Your task to perform on an android device: choose inbox layout in the gmail app Image 0: 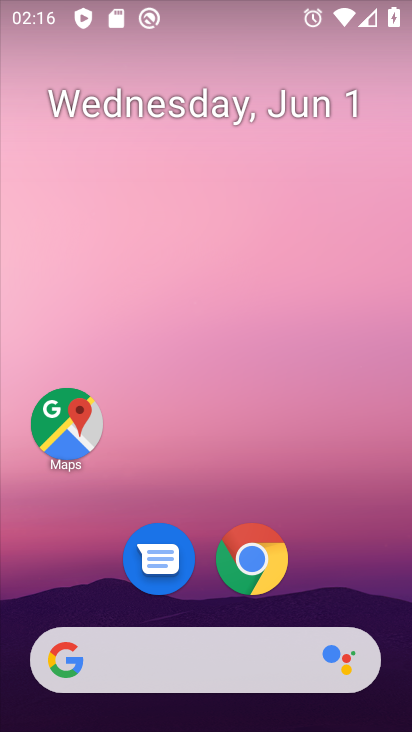
Step 0: press home button
Your task to perform on an android device: choose inbox layout in the gmail app Image 1: 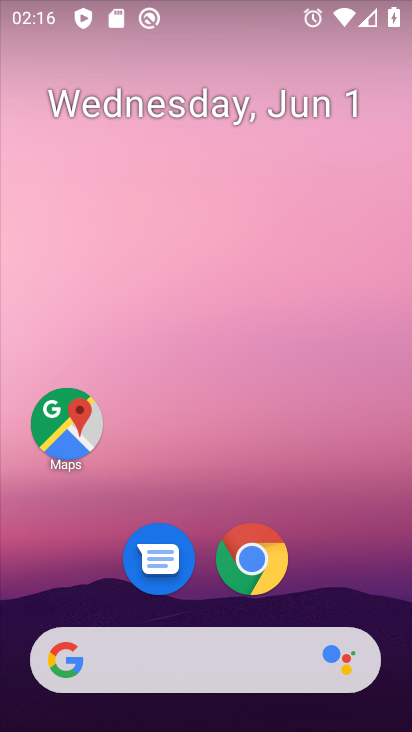
Step 1: drag from (339, 602) to (411, 172)
Your task to perform on an android device: choose inbox layout in the gmail app Image 2: 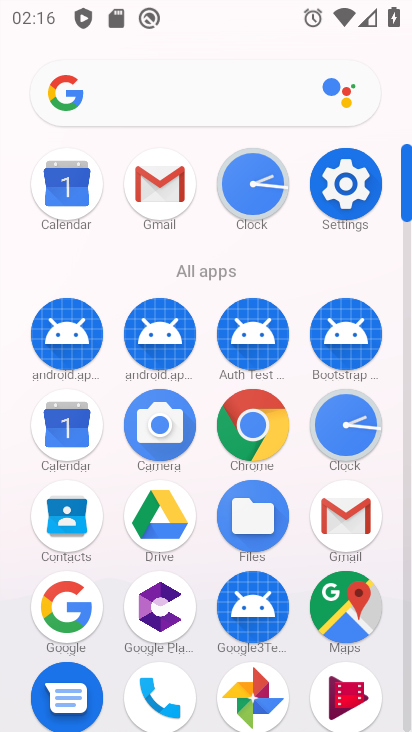
Step 2: click (346, 516)
Your task to perform on an android device: choose inbox layout in the gmail app Image 3: 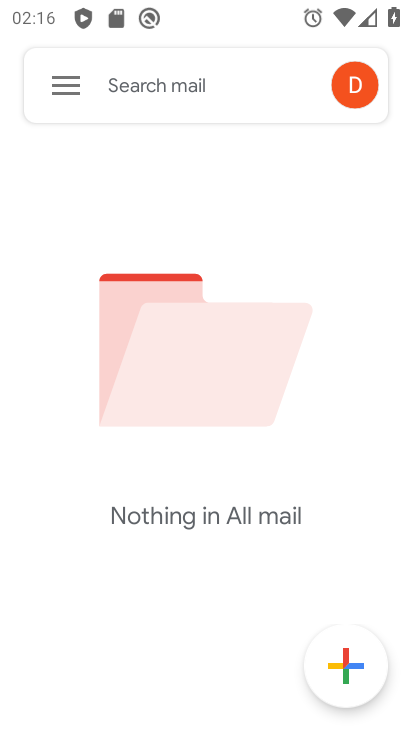
Step 3: click (55, 75)
Your task to perform on an android device: choose inbox layout in the gmail app Image 4: 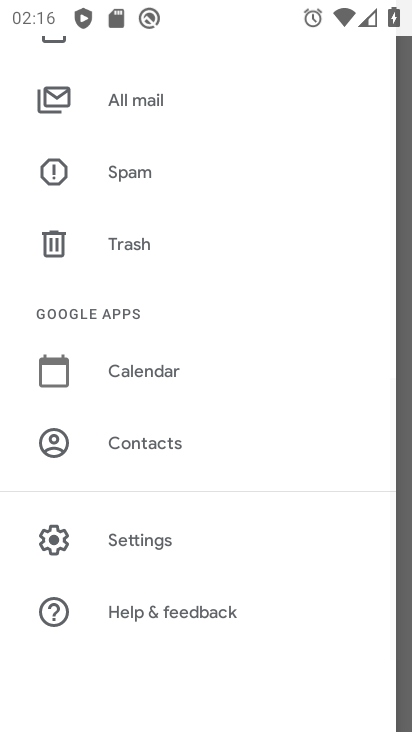
Step 4: click (129, 543)
Your task to perform on an android device: choose inbox layout in the gmail app Image 5: 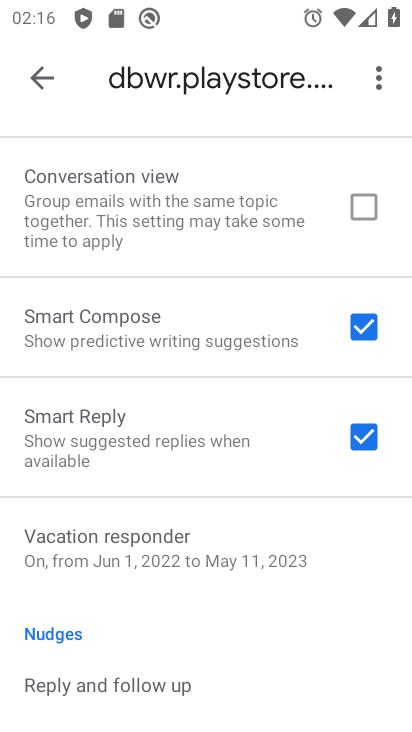
Step 5: drag from (282, 610) to (325, 292)
Your task to perform on an android device: choose inbox layout in the gmail app Image 6: 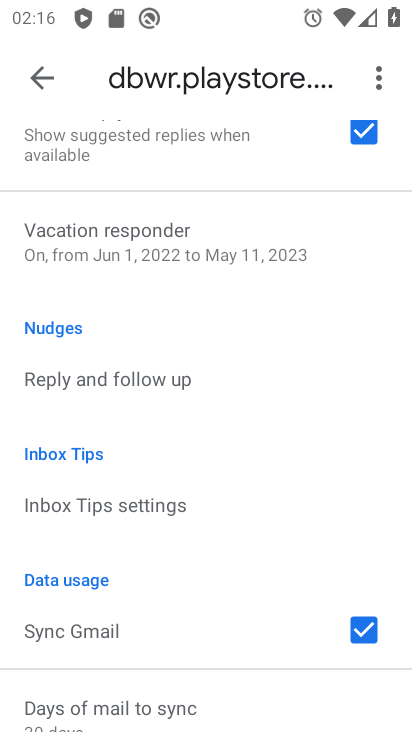
Step 6: drag from (291, 464) to (324, 220)
Your task to perform on an android device: choose inbox layout in the gmail app Image 7: 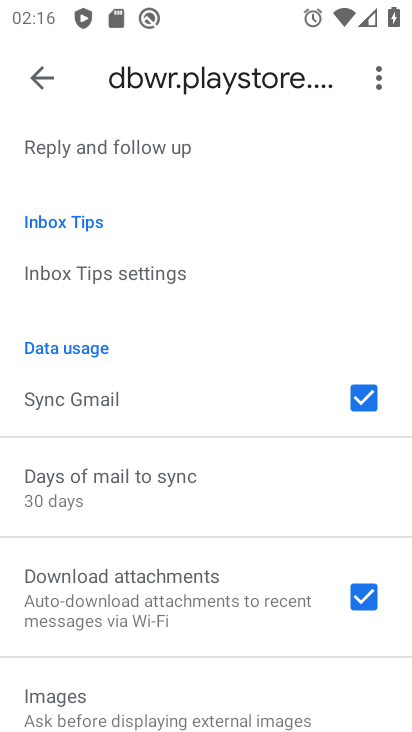
Step 7: drag from (248, 502) to (285, 165)
Your task to perform on an android device: choose inbox layout in the gmail app Image 8: 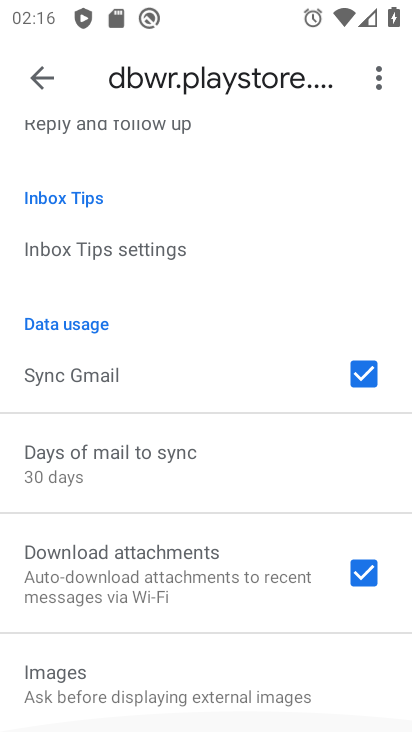
Step 8: drag from (285, 165) to (187, 728)
Your task to perform on an android device: choose inbox layout in the gmail app Image 9: 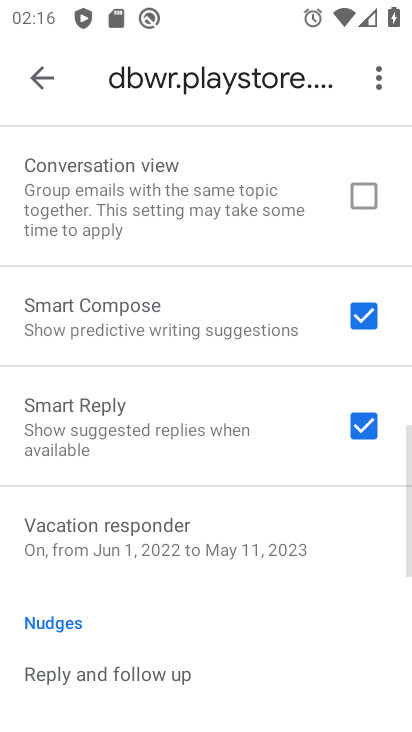
Step 9: drag from (216, 295) to (179, 631)
Your task to perform on an android device: choose inbox layout in the gmail app Image 10: 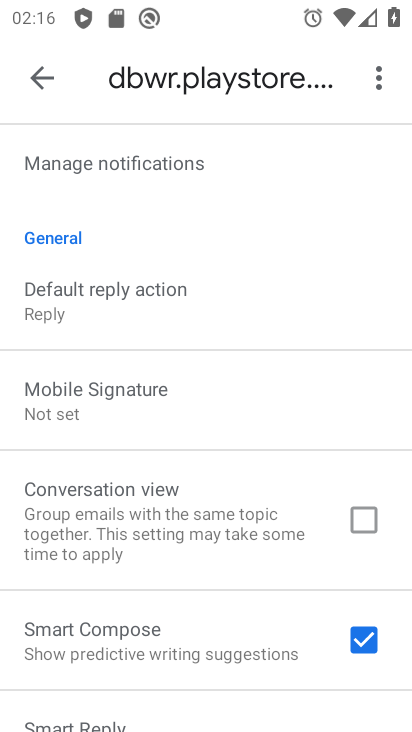
Step 10: drag from (243, 285) to (199, 646)
Your task to perform on an android device: choose inbox layout in the gmail app Image 11: 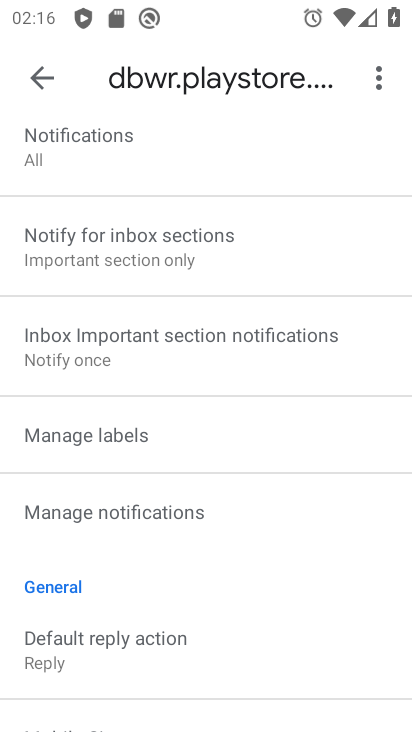
Step 11: drag from (317, 361) to (216, 677)
Your task to perform on an android device: choose inbox layout in the gmail app Image 12: 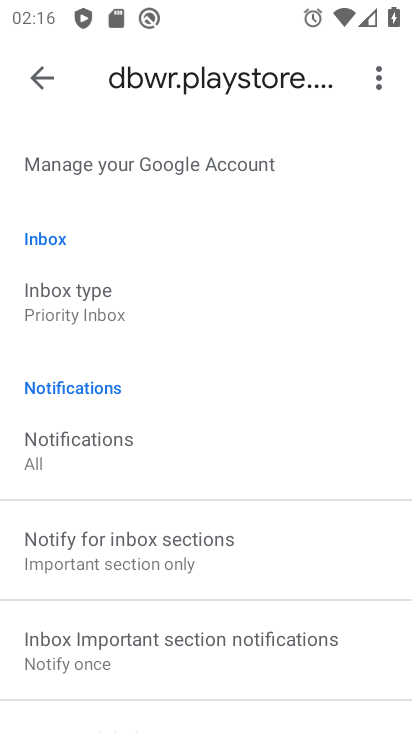
Step 12: click (68, 288)
Your task to perform on an android device: choose inbox layout in the gmail app Image 13: 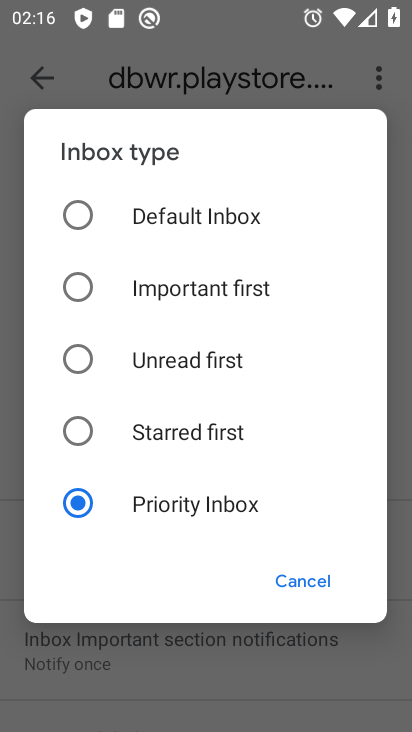
Step 13: click (78, 290)
Your task to perform on an android device: choose inbox layout in the gmail app Image 14: 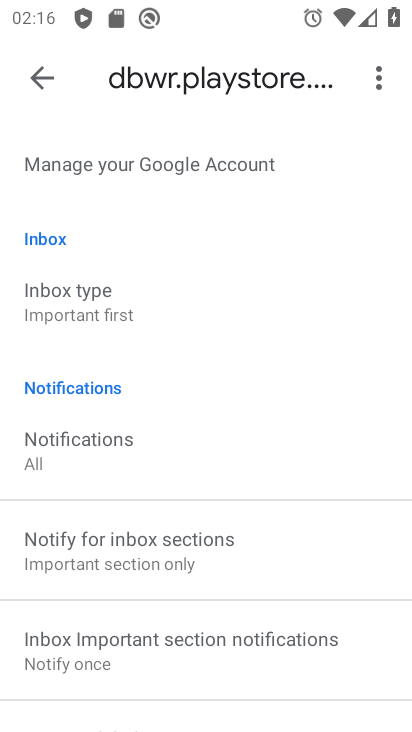
Step 14: task complete